Your task to perform on an android device: see tabs open on other devices in the chrome app Image 0: 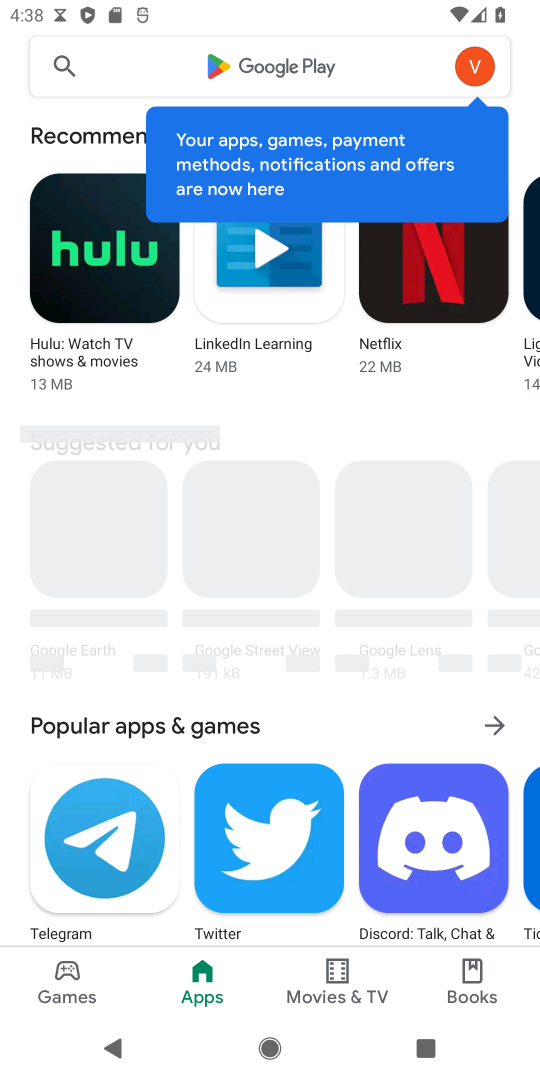
Step 0: press back button
Your task to perform on an android device: see tabs open on other devices in the chrome app Image 1: 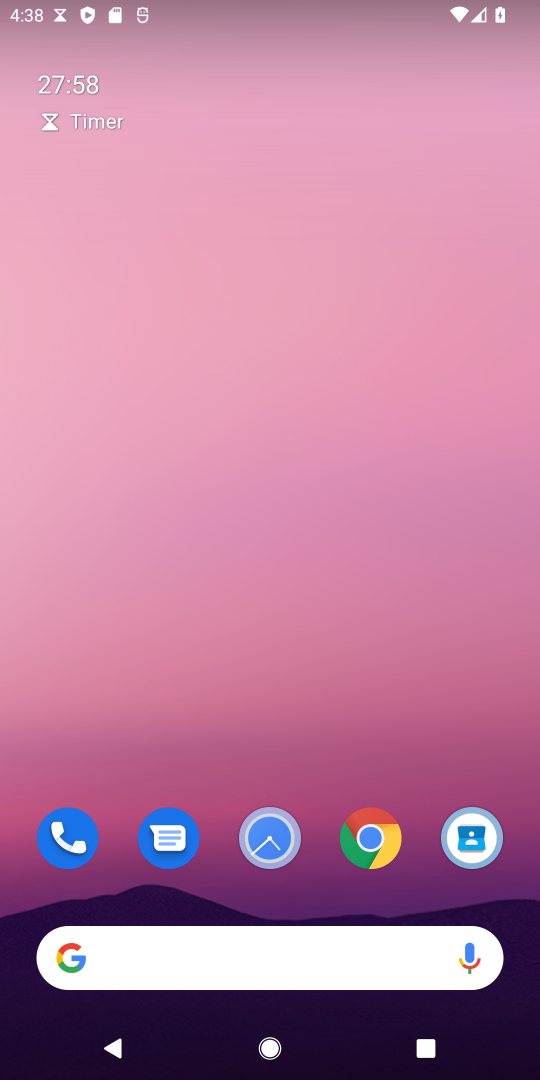
Step 1: drag from (325, 769) to (320, 92)
Your task to perform on an android device: see tabs open on other devices in the chrome app Image 2: 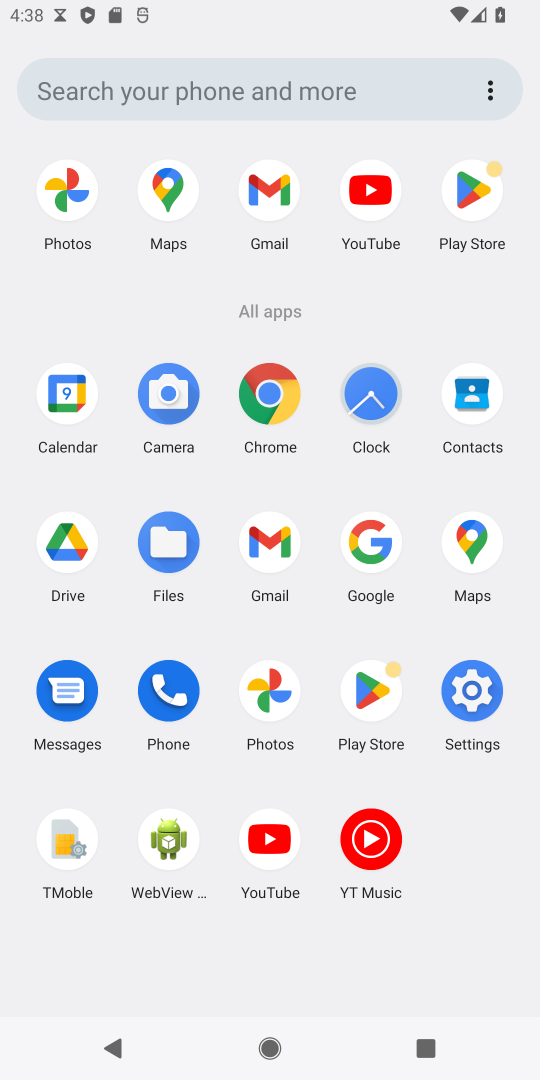
Step 2: click (262, 382)
Your task to perform on an android device: see tabs open on other devices in the chrome app Image 3: 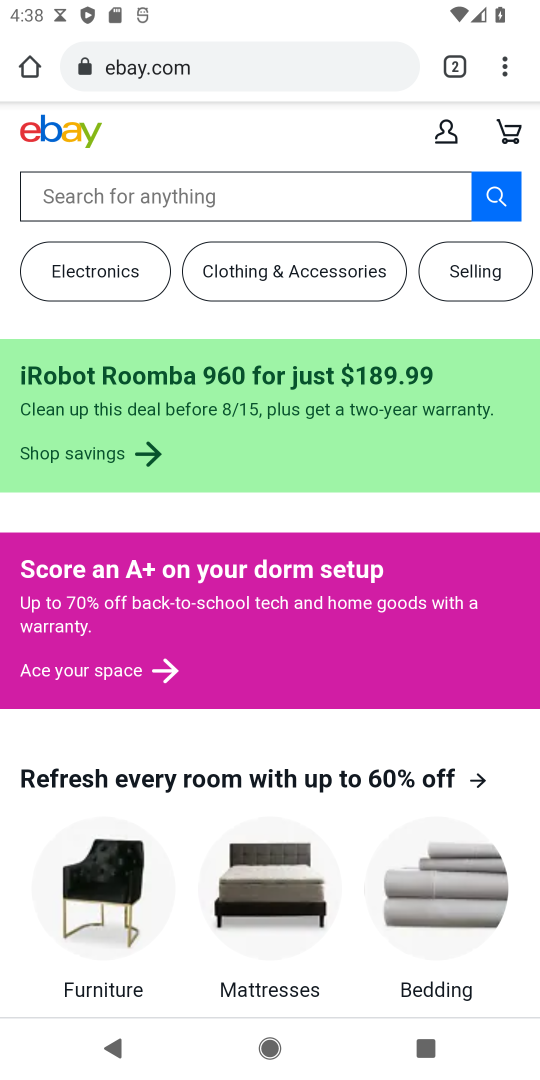
Step 3: click (514, 77)
Your task to perform on an android device: see tabs open on other devices in the chrome app Image 4: 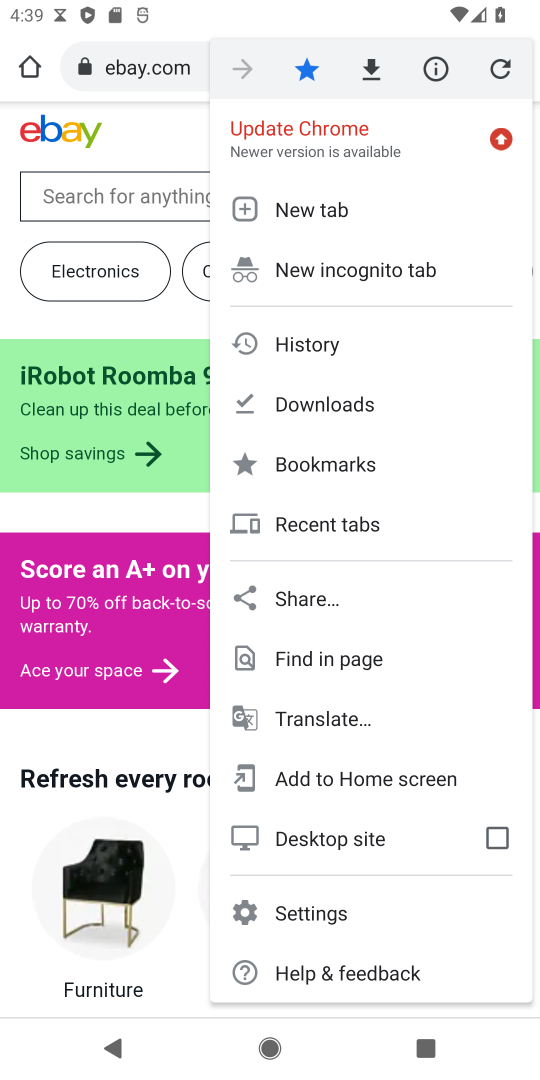
Step 4: click (364, 519)
Your task to perform on an android device: see tabs open on other devices in the chrome app Image 5: 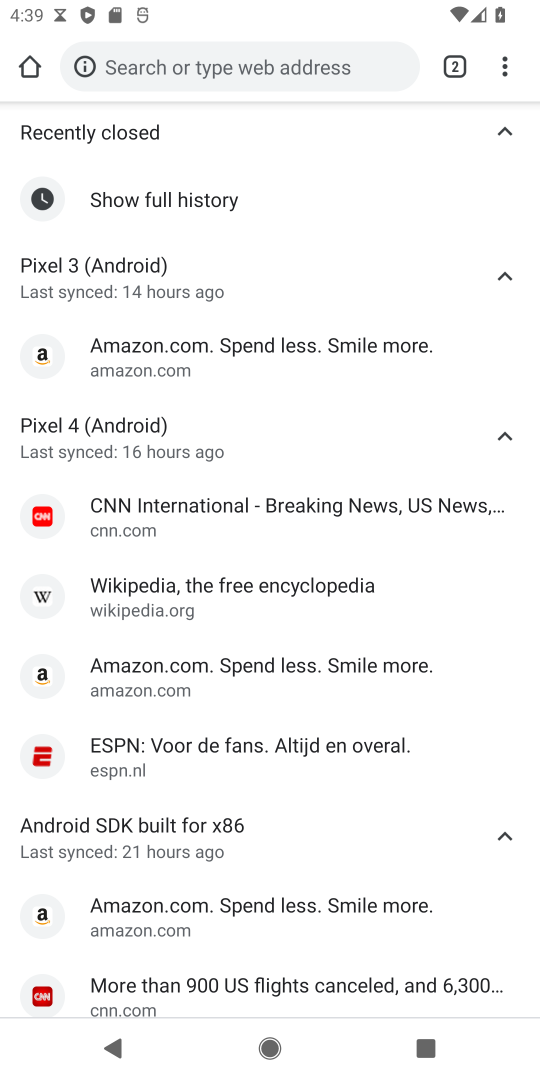
Step 5: task complete